Your task to perform on an android device: turn off location history Image 0: 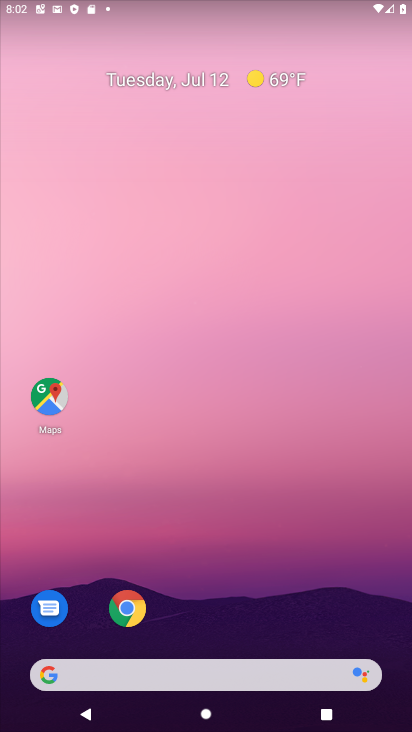
Step 0: drag from (187, 609) to (232, 181)
Your task to perform on an android device: turn off location history Image 1: 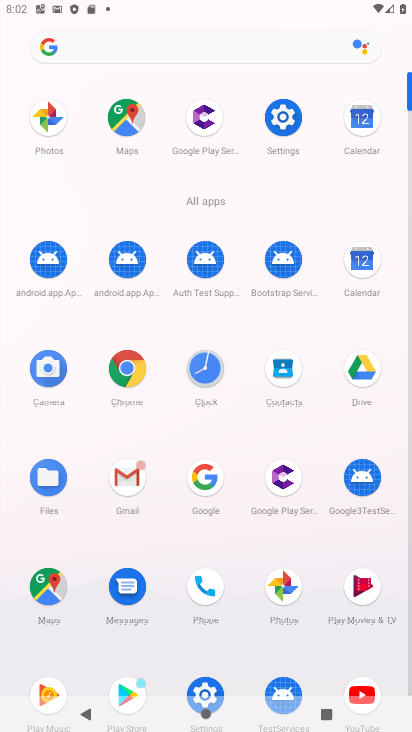
Step 1: click (284, 114)
Your task to perform on an android device: turn off location history Image 2: 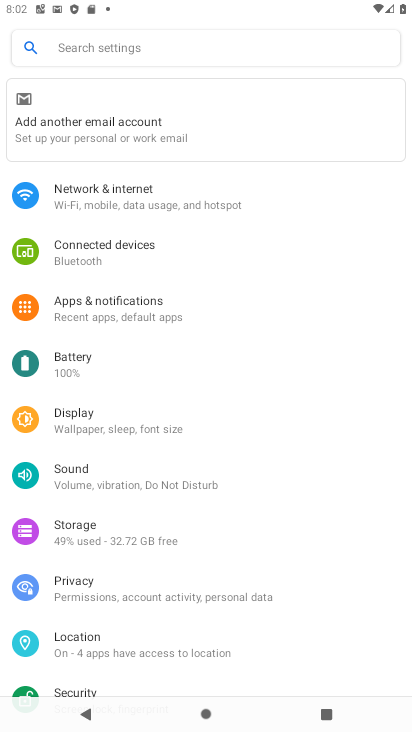
Step 2: click (94, 647)
Your task to perform on an android device: turn off location history Image 3: 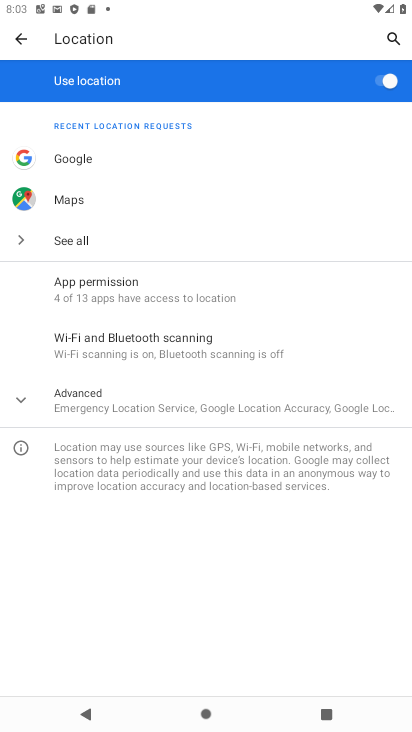
Step 3: click (173, 397)
Your task to perform on an android device: turn off location history Image 4: 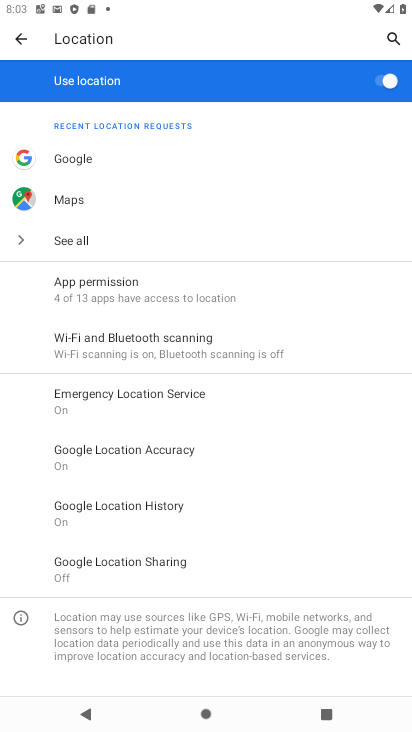
Step 4: drag from (181, 527) to (228, 252)
Your task to perform on an android device: turn off location history Image 5: 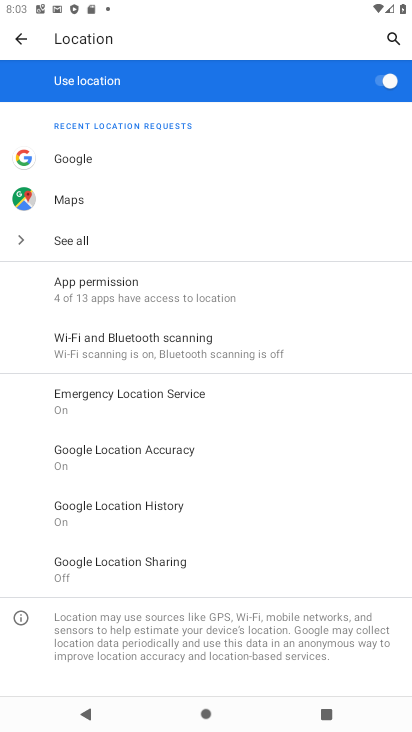
Step 5: click (128, 505)
Your task to perform on an android device: turn off location history Image 6: 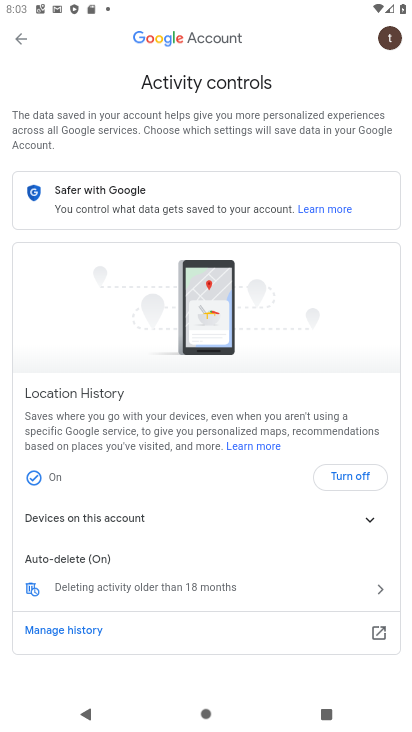
Step 6: click (347, 478)
Your task to perform on an android device: turn off location history Image 7: 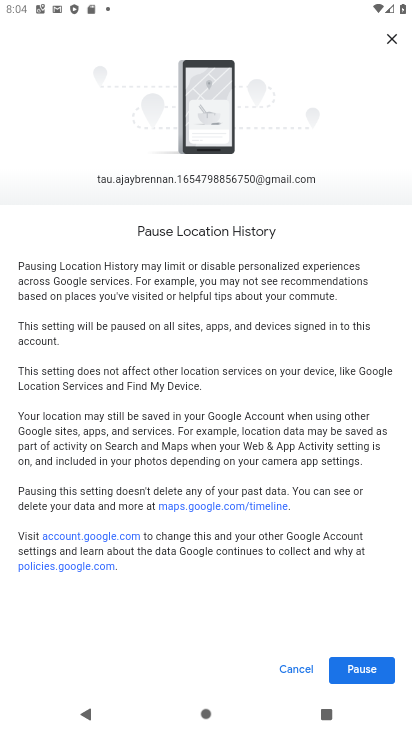
Step 7: task complete